Your task to perform on an android device: turn vacation reply on in the gmail app Image 0: 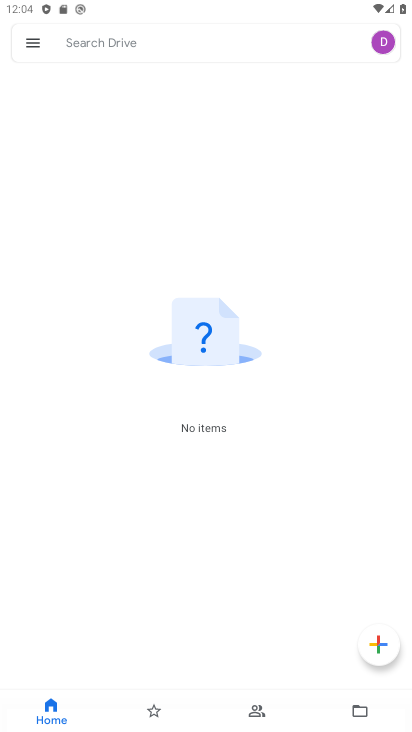
Step 0: press home button
Your task to perform on an android device: turn vacation reply on in the gmail app Image 1: 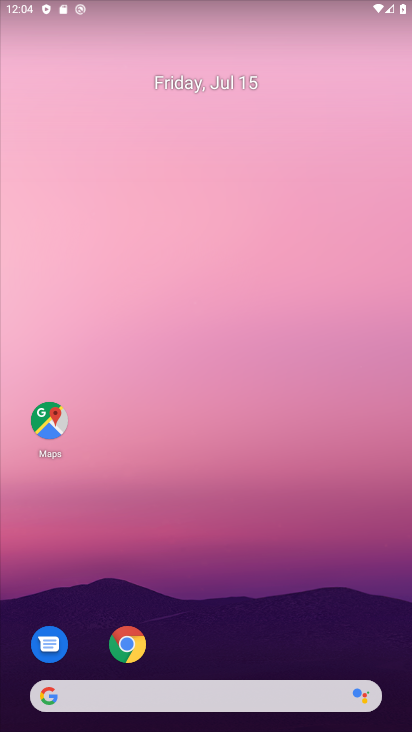
Step 1: drag from (387, 626) to (203, 88)
Your task to perform on an android device: turn vacation reply on in the gmail app Image 2: 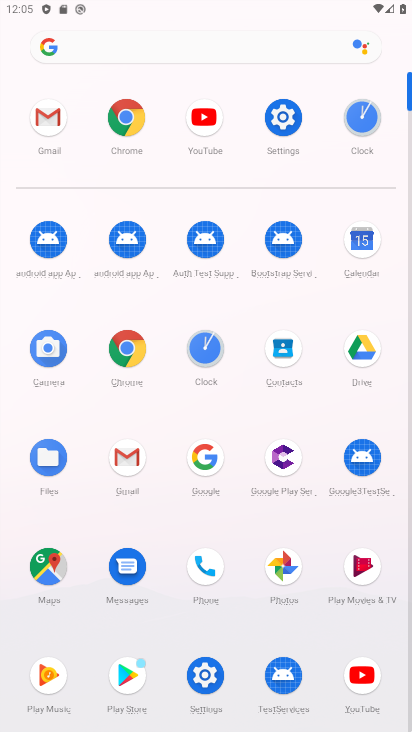
Step 2: click (116, 461)
Your task to perform on an android device: turn vacation reply on in the gmail app Image 3: 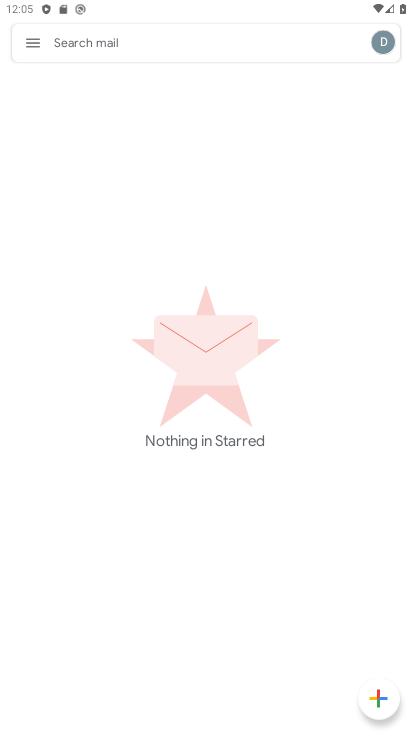
Step 3: click (30, 42)
Your task to perform on an android device: turn vacation reply on in the gmail app Image 4: 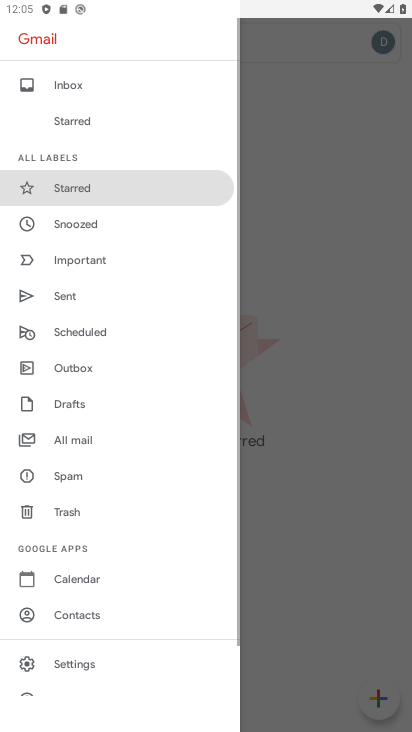
Step 4: click (61, 657)
Your task to perform on an android device: turn vacation reply on in the gmail app Image 5: 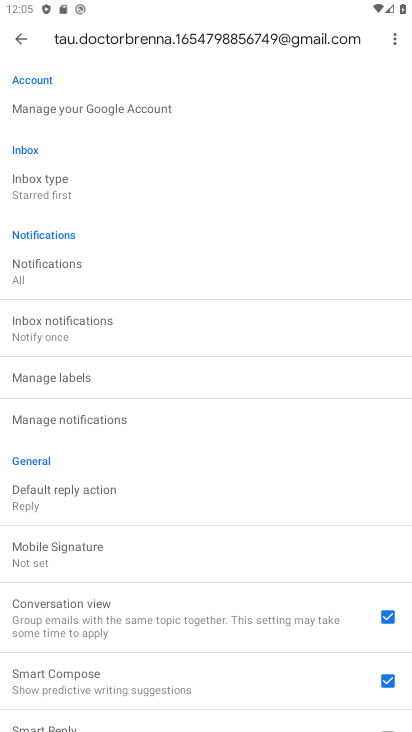
Step 5: drag from (129, 656) to (162, 2)
Your task to perform on an android device: turn vacation reply on in the gmail app Image 6: 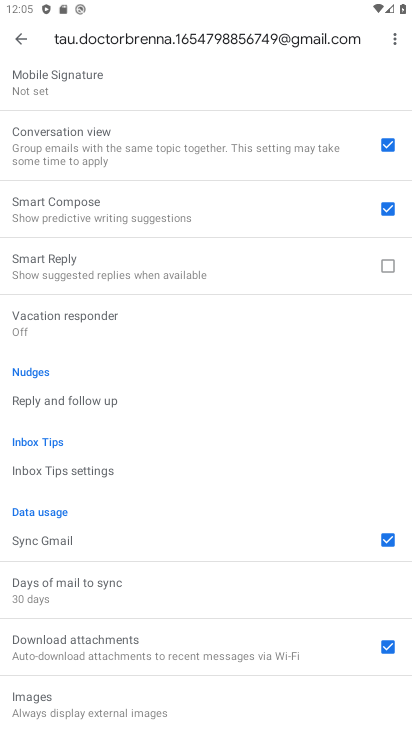
Step 6: click (121, 318)
Your task to perform on an android device: turn vacation reply on in the gmail app Image 7: 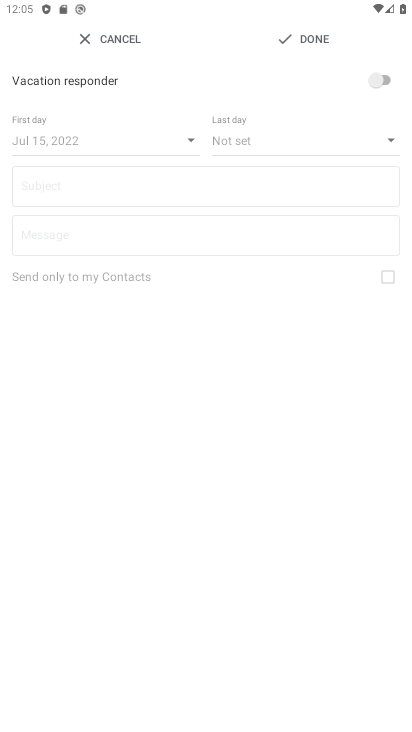
Step 7: click (382, 78)
Your task to perform on an android device: turn vacation reply on in the gmail app Image 8: 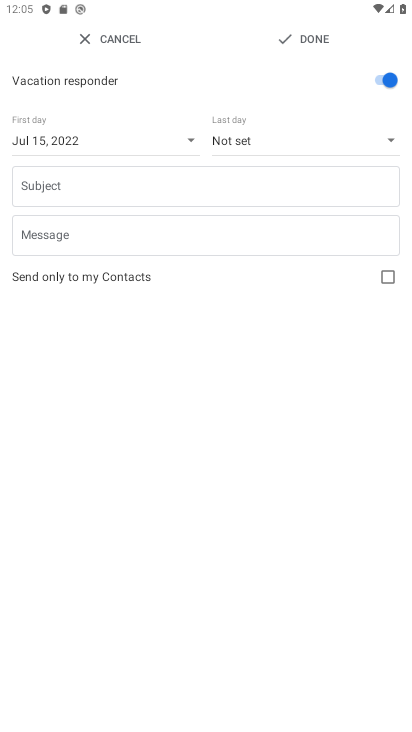
Step 8: task complete